Your task to perform on an android device: Do I have any events tomorrow? Image 0: 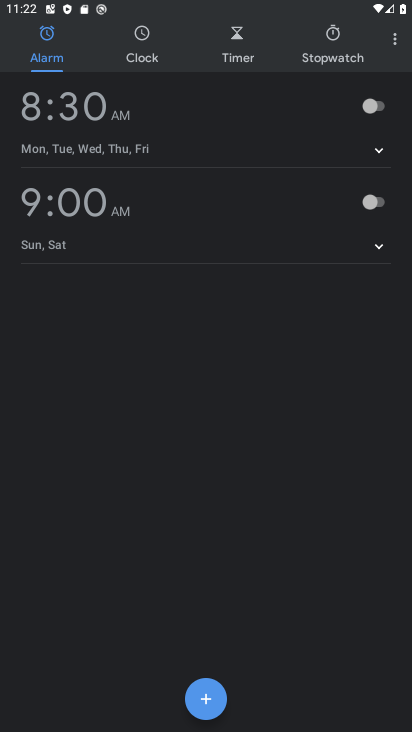
Step 0: press home button
Your task to perform on an android device: Do I have any events tomorrow? Image 1: 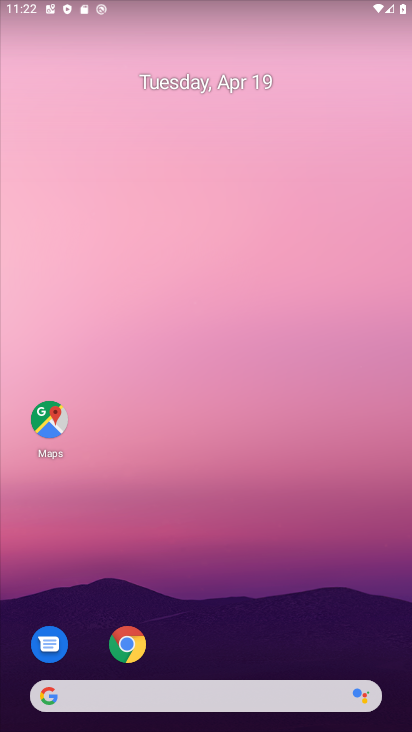
Step 1: drag from (216, 706) to (216, 176)
Your task to perform on an android device: Do I have any events tomorrow? Image 2: 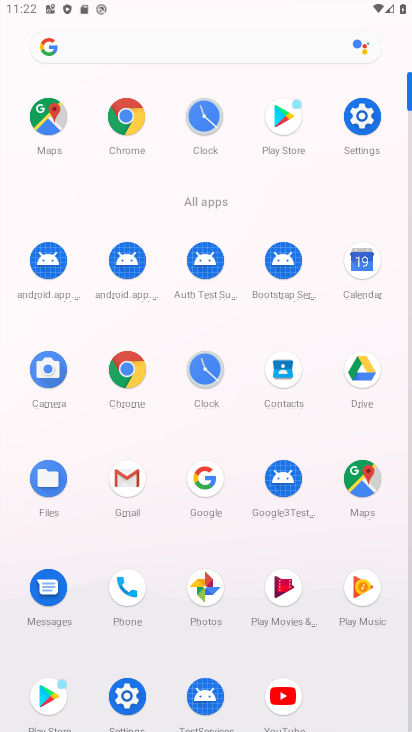
Step 2: click (360, 267)
Your task to perform on an android device: Do I have any events tomorrow? Image 3: 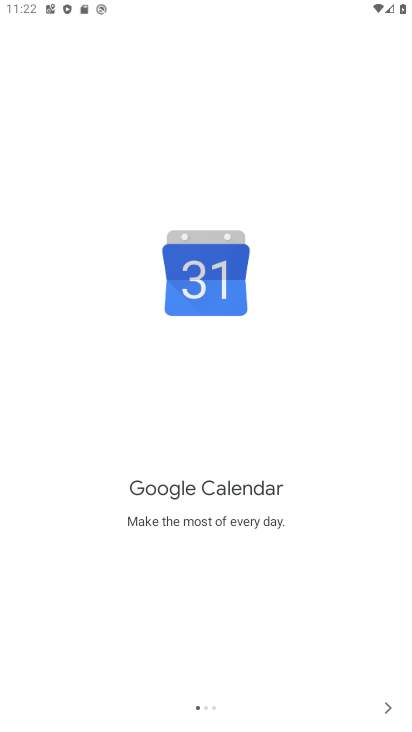
Step 3: click (385, 708)
Your task to perform on an android device: Do I have any events tomorrow? Image 4: 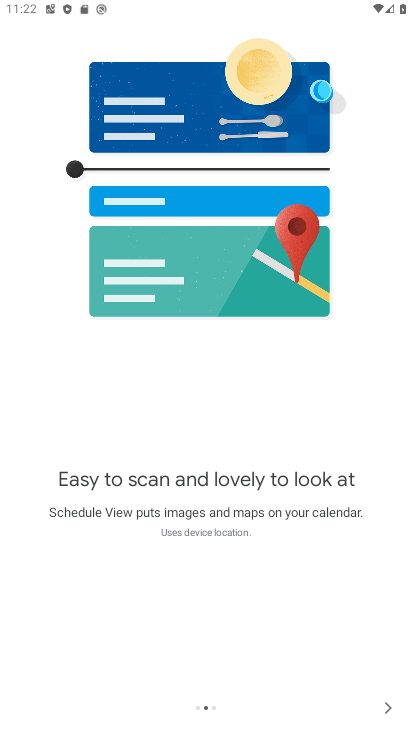
Step 4: click (385, 708)
Your task to perform on an android device: Do I have any events tomorrow? Image 5: 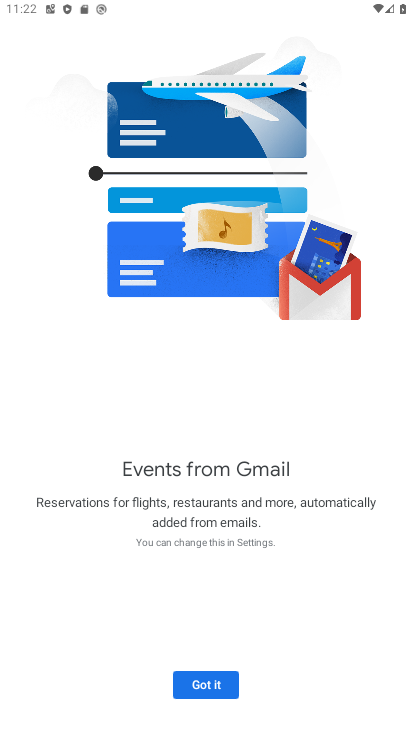
Step 5: click (210, 682)
Your task to perform on an android device: Do I have any events tomorrow? Image 6: 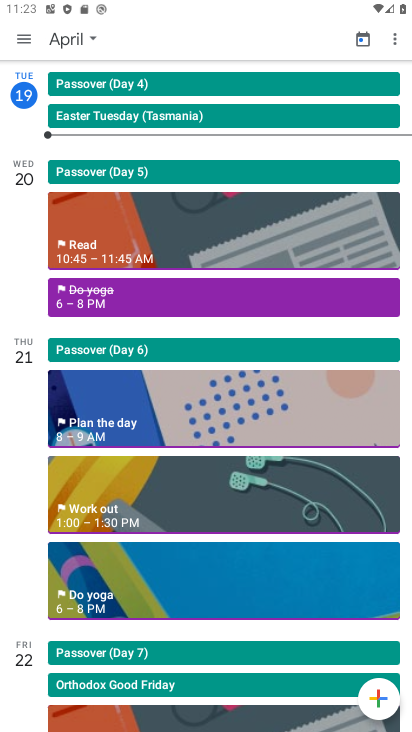
Step 6: click (23, 36)
Your task to perform on an android device: Do I have any events tomorrow? Image 7: 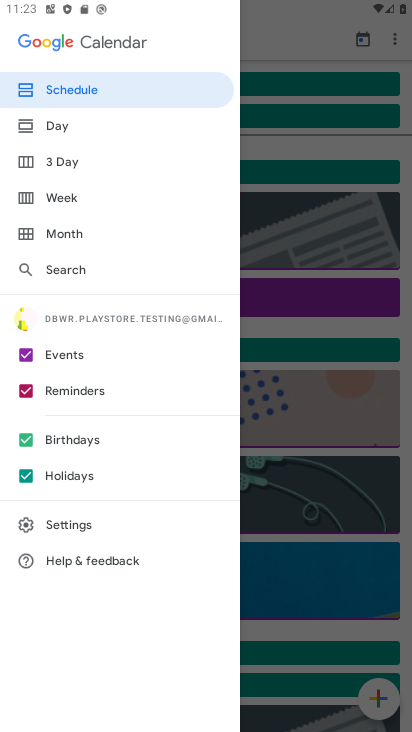
Step 7: click (27, 390)
Your task to perform on an android device: Do I have any events tomorrow? Image 8: 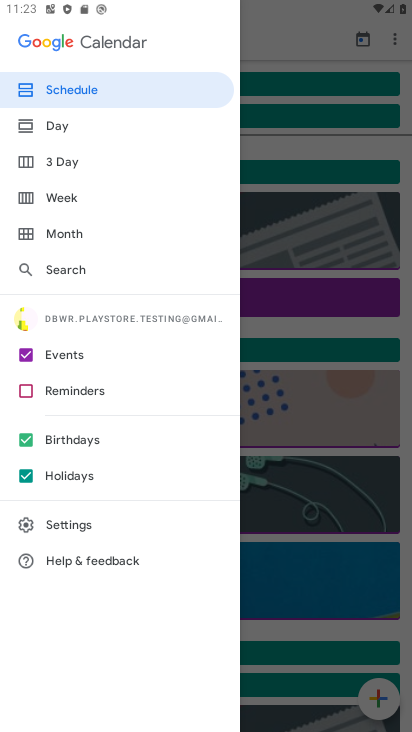
Step 8: click (25, 445)
Your task to perform on an android device: Do I have any events tomorrow? Image 9: 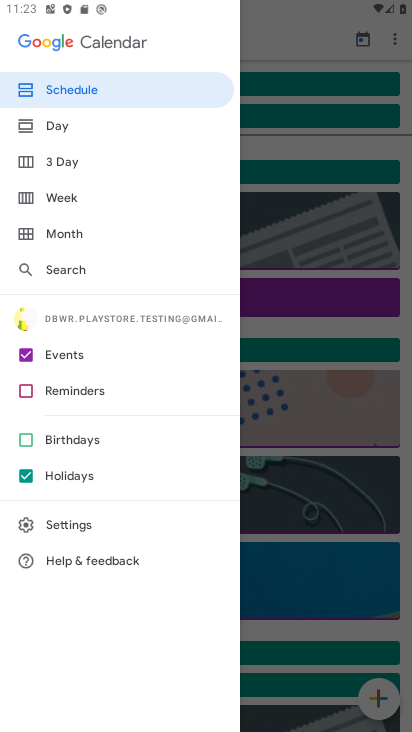
Step 9: click (22, 471)
Your task to perform on an android device: Do I have any events tomorrow? Image 10: 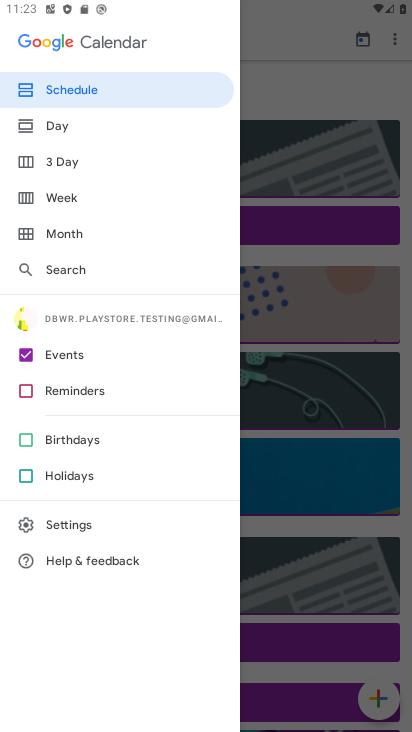
Step 10: click (125, 89)
Your task to perform on an android device: Do I have any events tomorrow? Image 11: 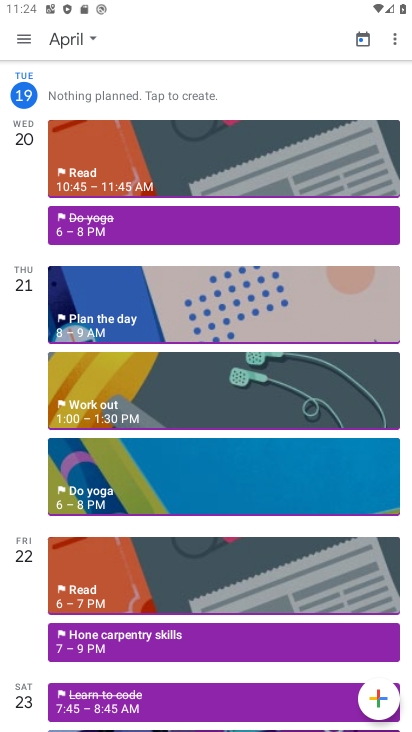
Step 11: task complete